Your task to perform on an android device: delete the emails in spam in the gmail app Image 0: 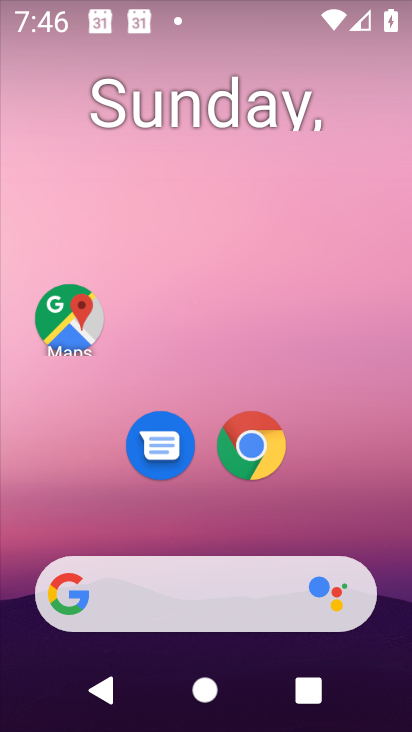
Step 0: press home button
Your task to perform on an android device: delete the emails in spam in the gmail app Image 1: 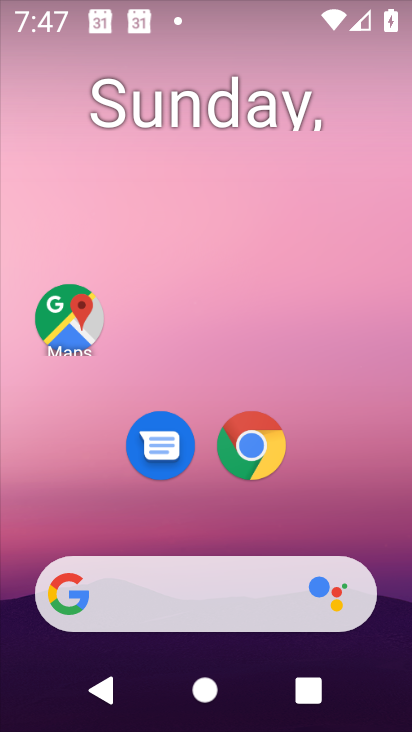
Step 1: drag from (41, 498) to (171, 195)
Your task to perform on an android device: delete the emails in spam in the gmail app Image 2: 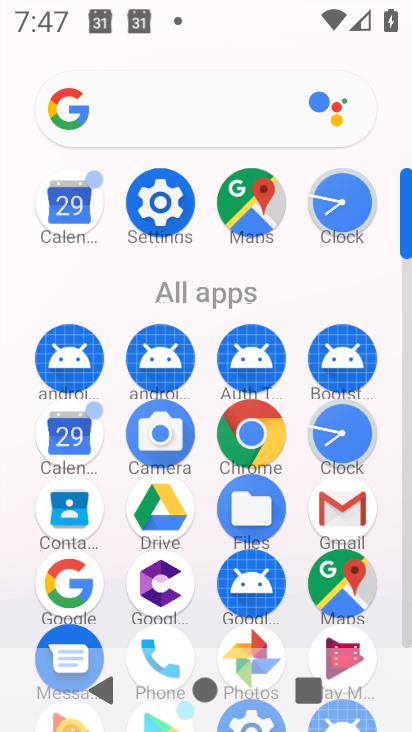
Step 2: click (338, 508)
Your task to perform on an android device: delete the emails in spam in the gmail app Image 3: 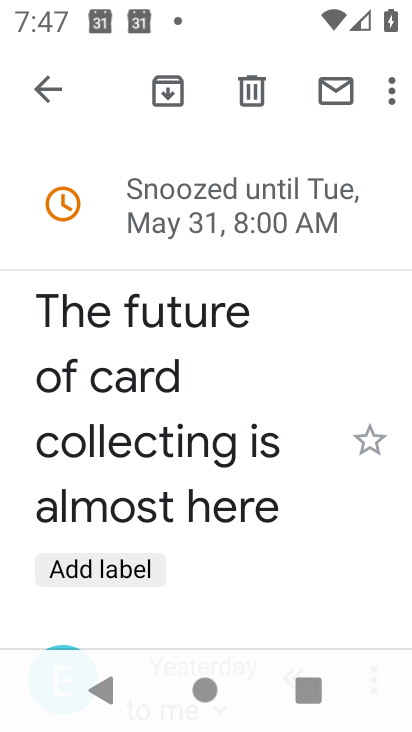
Step 3: click (53, 98)
Your task to perform on an android device: delete the emails in spam in the gmail app Image 4: 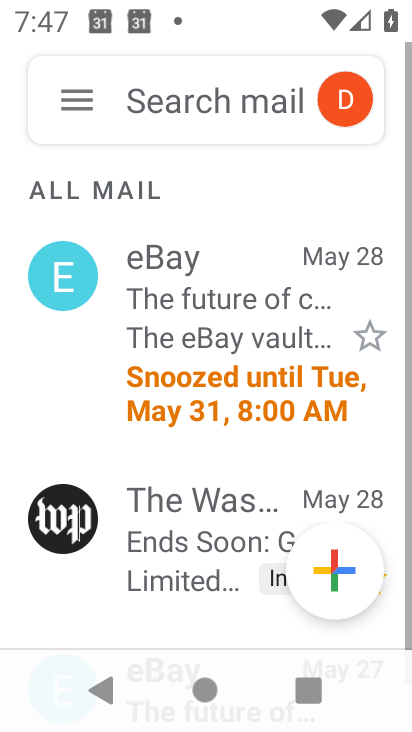
Step 4: click (82, 108)
Your task to perform on an android device: delete the emails in spam in the gmail app Image 5: 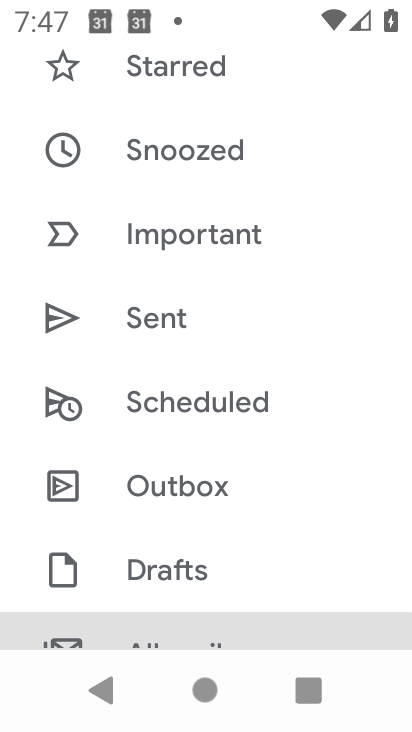
Step 5: drag from (223, 150) to (129, 640)
Your task to perform on an android device: delete the emails in spam in the gmail app Image 6: 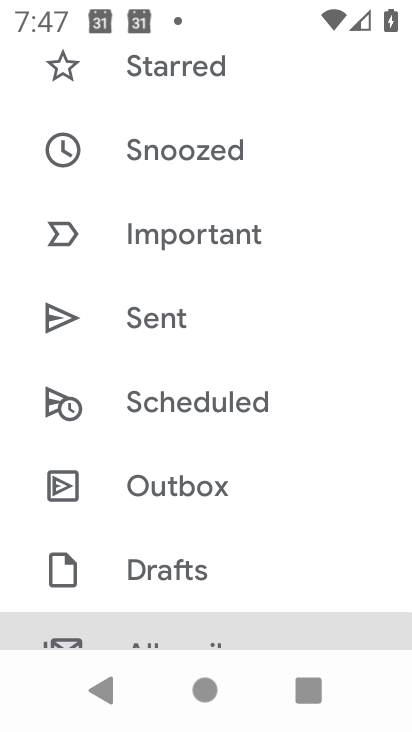
Step 6: drag from (86, 111) to (178, 516)
Your task to perform on an android device: delete the emails in spam in the gmail app Image 7: 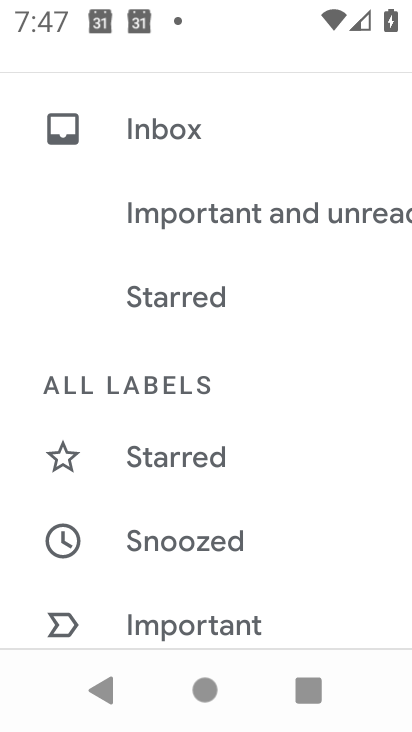
Step 7: drag from (255, 111) to (152, 553)
Your task to perform on an android device: delete the emails in spam in the gmail app Image 8: 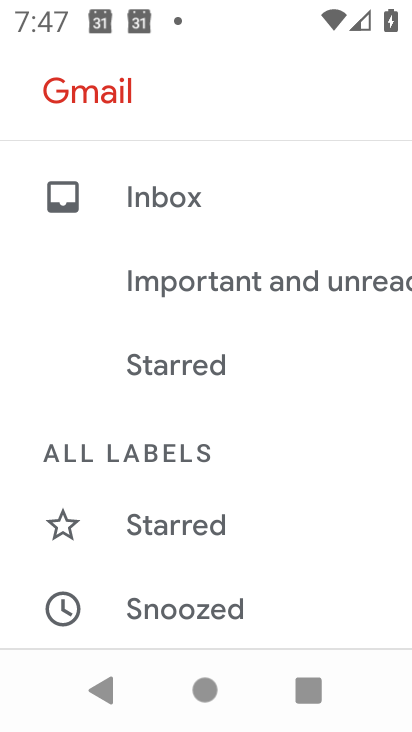
Step 8: drag from (4, 629) to (282, 167)
Your task to perform on an android device: delete the emails in spam in the gmail app Image 9: 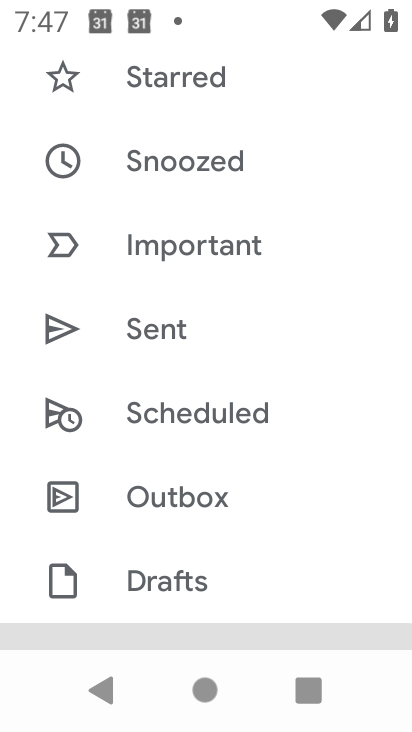
Step 9: drag from (28, 599) to (237, 171)
Your task to perform on an android device: delete the emails in spam in the gmail app Image 10: 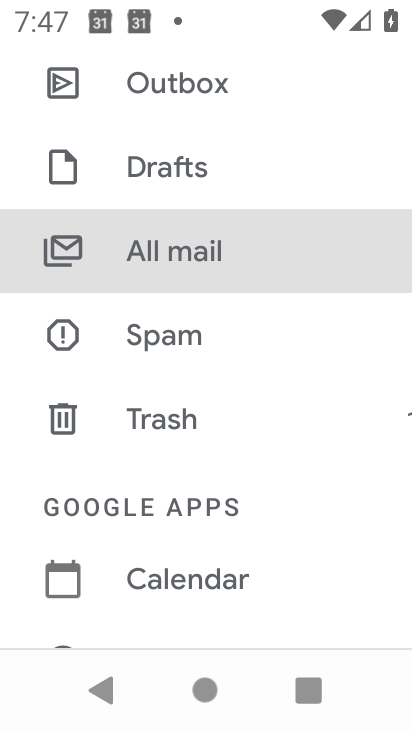
Step 10: click (159, 329)
Your task to perform on an android device: delete the emails in spam in the gmail app Image 11: 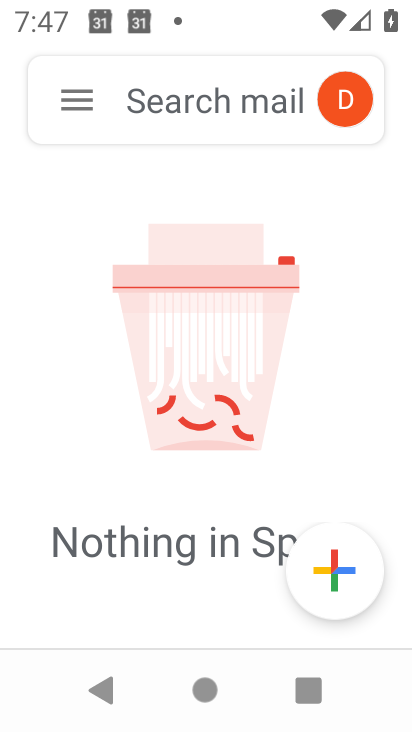
Step 11: task complete